Your task to perform on an android device: set the timer Image 0: 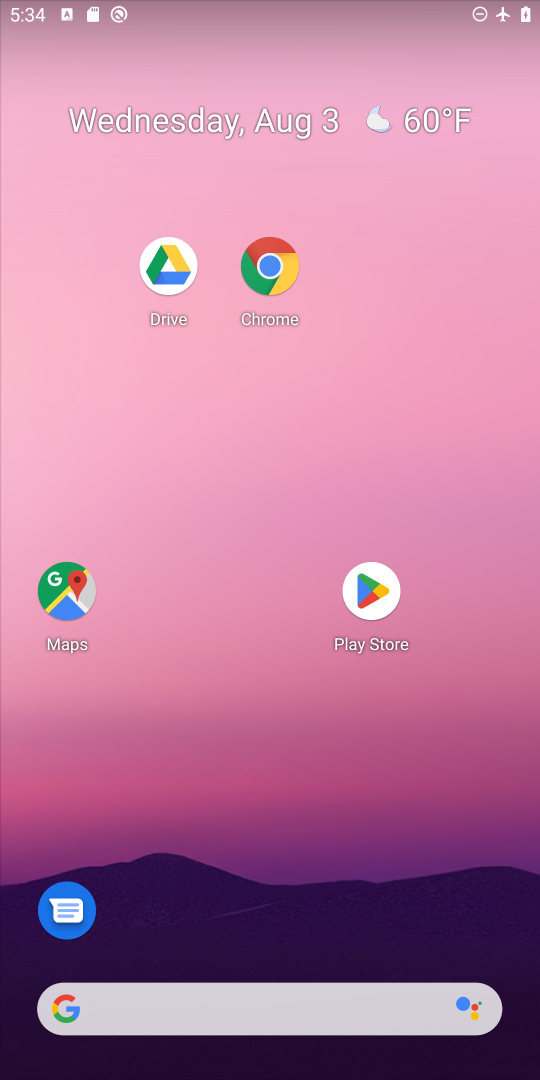
Step 0: drag from (389, 1026) to (373, 31)
Your task to perform on an android device: set the timer Image 1: 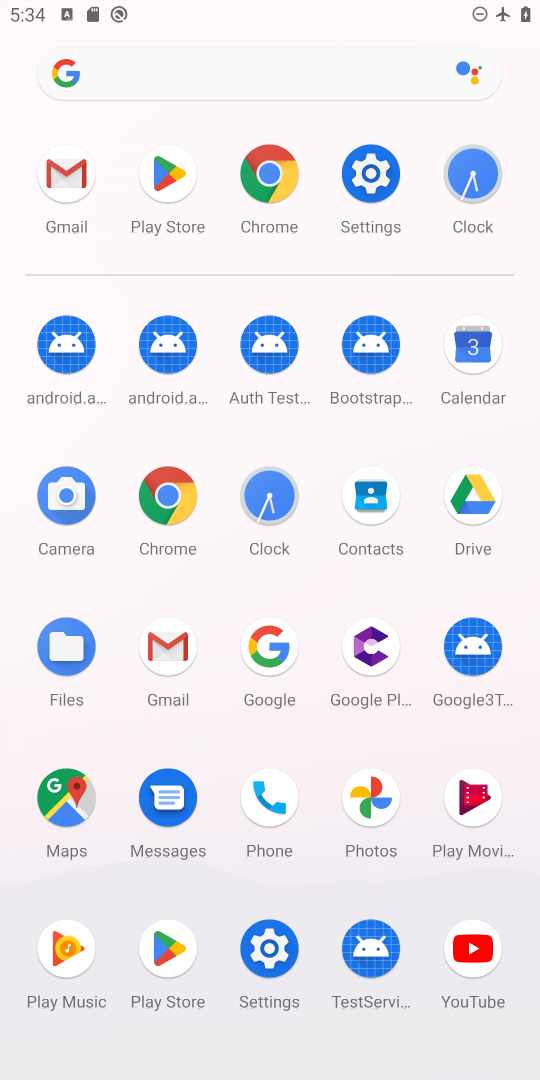
Step 1: click (273, 494)
Your task to perform on an android device: set the timer Image 2: 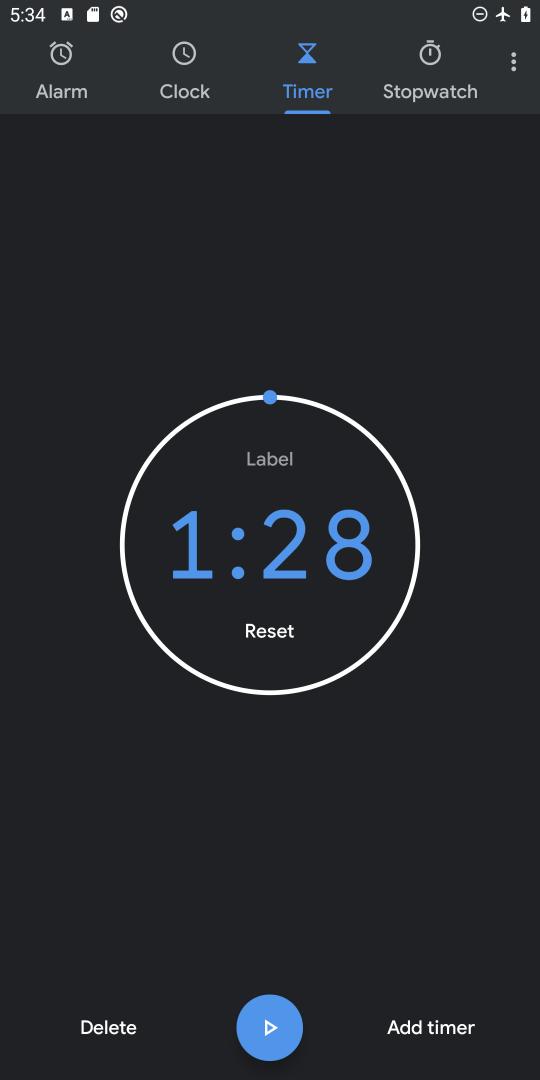
Step 2: click (261, 1027)
Your task to perform on an android device: set the timer Image 3: 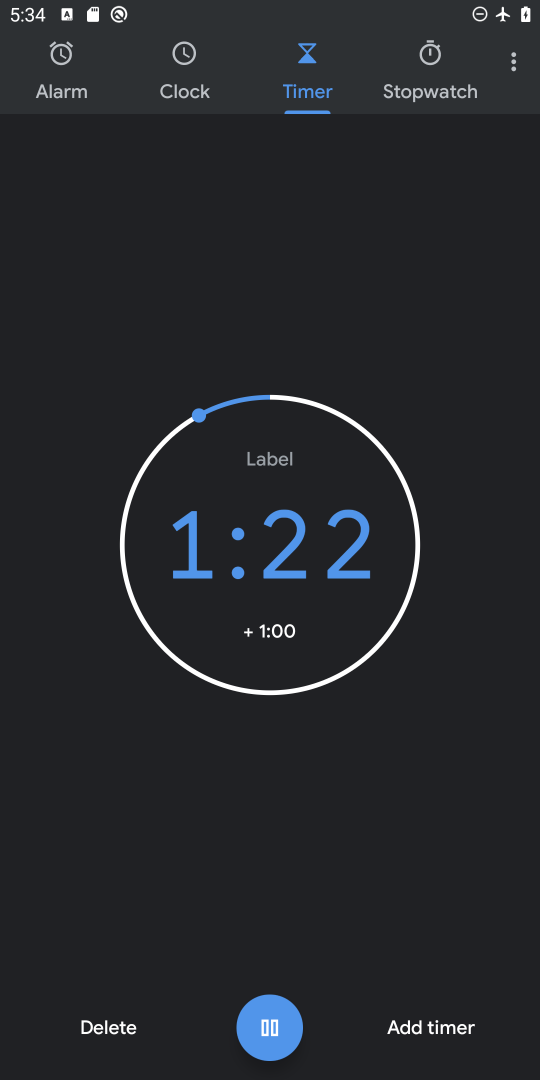
Step 3: task complete